Your task to perform on an android device: turn off notifications settings in the gmail app Image 0: 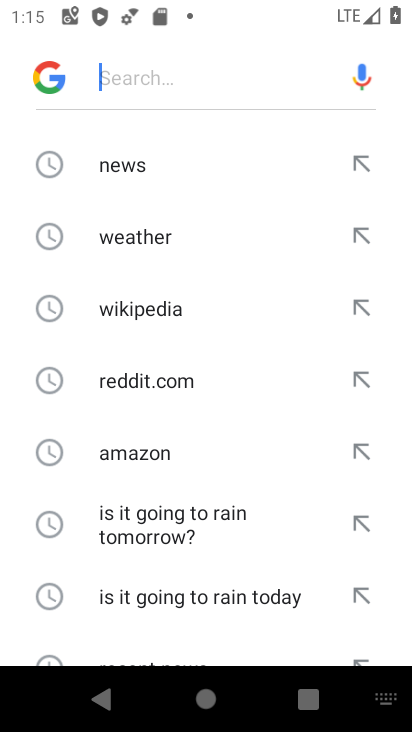
Step 0: press home button
Your task to perform on an android device: turn off notifications settings in the gmail app Image 1: 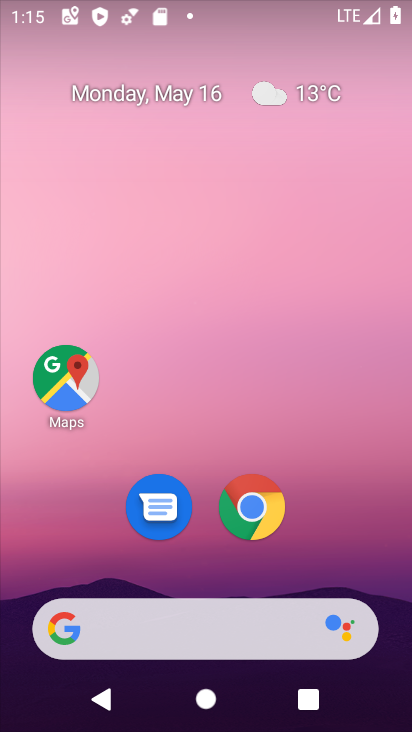
Step 1: drag from (333, 445) to (263, 97)
Your task to perform on an android device: turn off notifications settings in the gmail app Image 2: 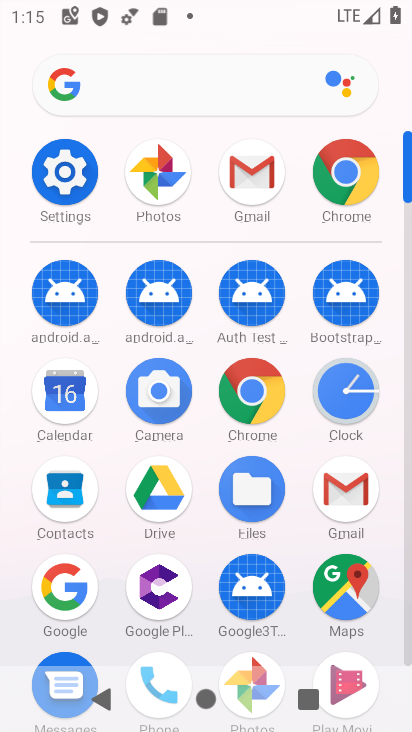
Step 2: click (351, 495)
Your task to perform on an android device: turn off notifications settings in the gmail app Image 3: 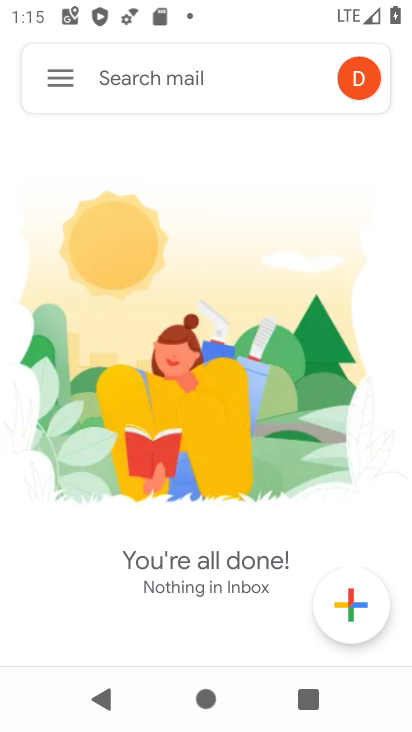
Step 3: click (61, 81)
Your task to perform on an android device: turn off notifications settings in the gmail app Image 4: 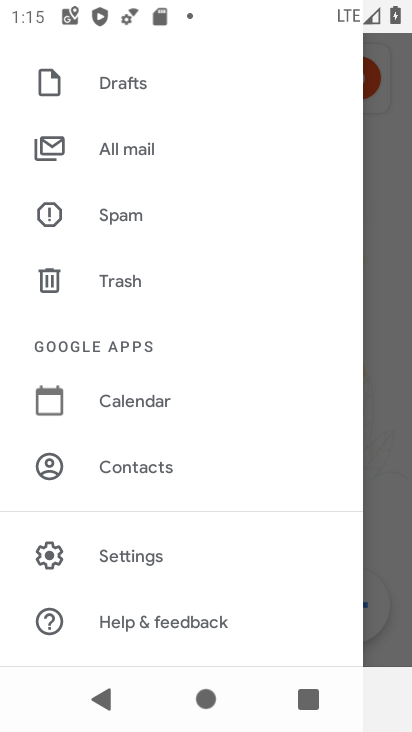
Step 4: click (160, 548)
Your task to perform on an android device: turn off notifications settings in the gmail app Image 5: 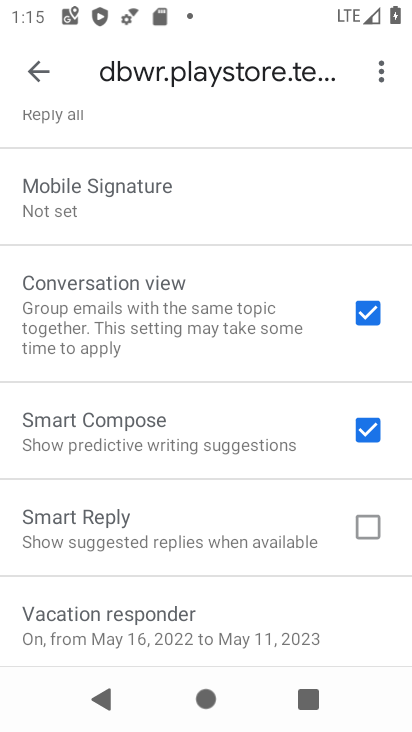
Step 5: drag from (215, 199) to (201, 601)
Your task to perform on an android device: turn off notifications settings in the gmail app Image 6: 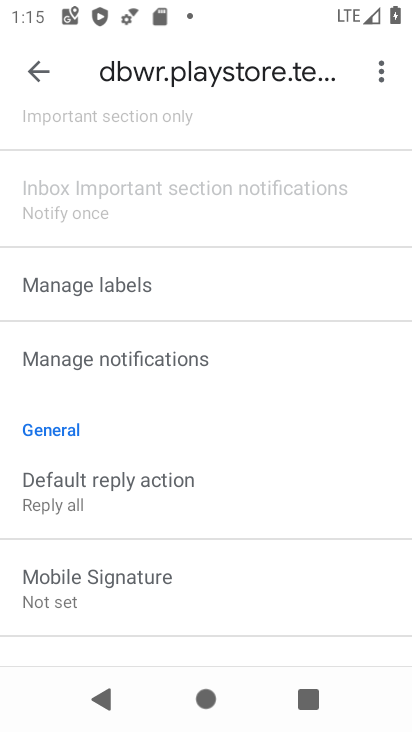
Step 6: click (167, 354)
Your task to perform on an android device: turn off notifications settings in the gmail app Image 7: 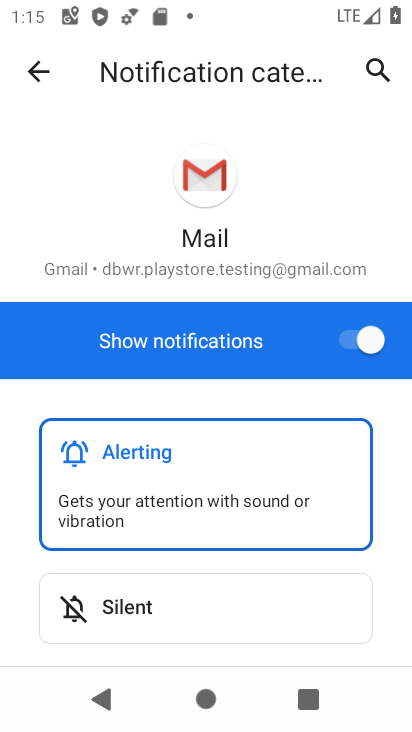
Step 7: click (355, 343)
Your task to perform on an android device: turn off notifications settings in the gmail app Image 8: 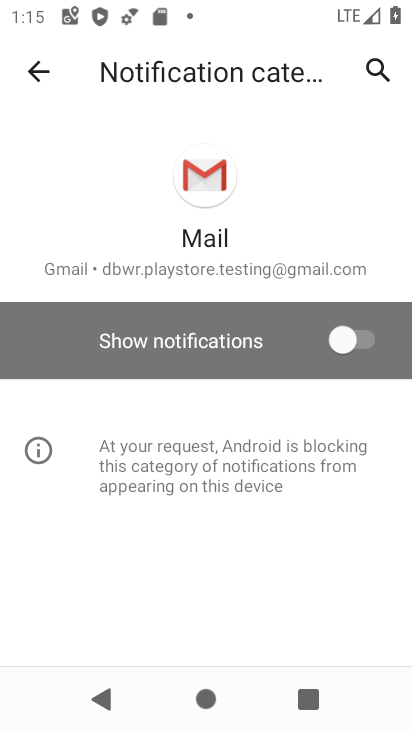
Step 8: task complete